Your task to perform on an android device: open app "Chime – Mobile Banking" (install if not already installed), go to login, and select forgot password Image 0: 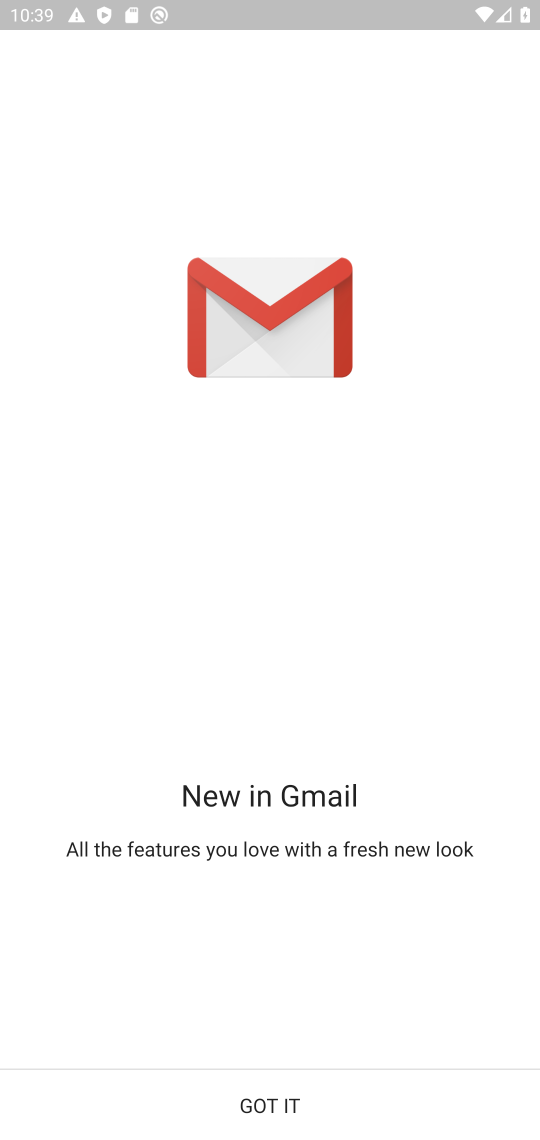
Step 0: press home button
Your task to perform on an android device: open app "Chime – Mobile Banking" (install if not already installed), go to login, and select forgot password Image 1: 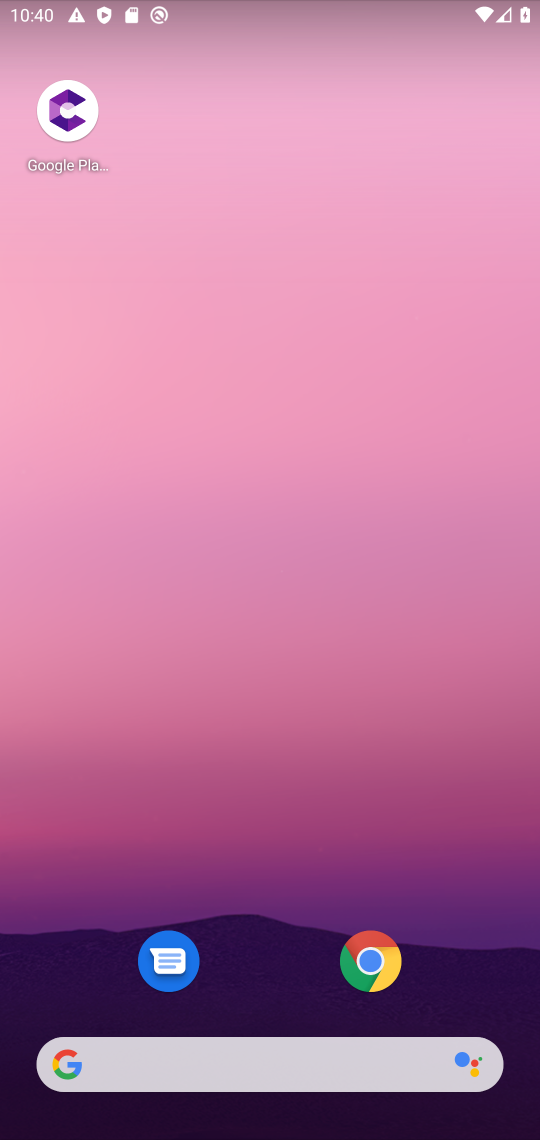
Step 1: drag from (270, 1003) to (328, 87)
Your task to perform on an android device: open app "Chime – Mobile Banking" (install if not already installed), go to login, and select forgot password Image 2: 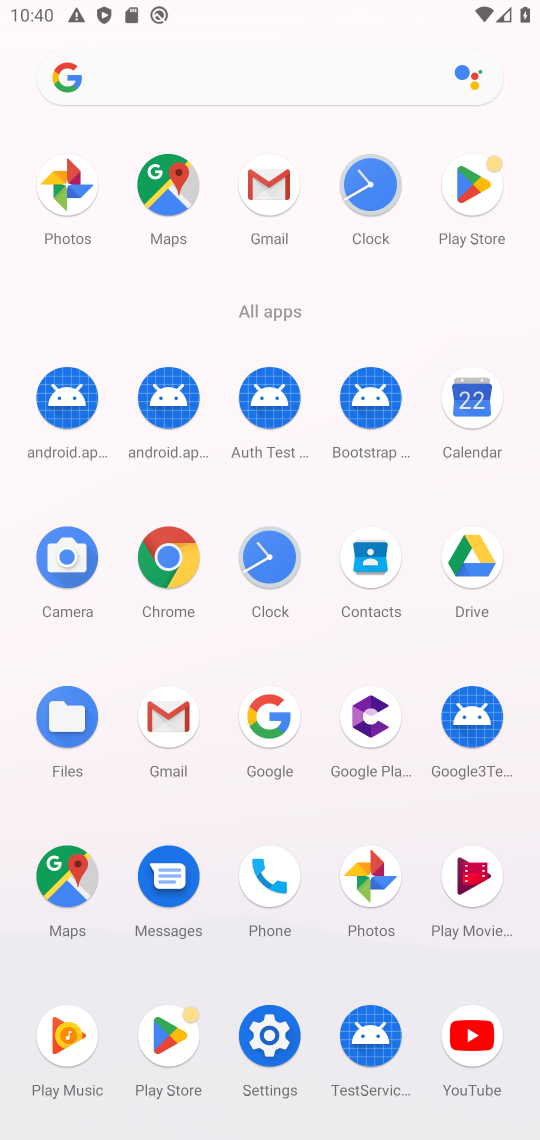
Step 2: click (481, 208)
Your task to perform on an android device: open app "Chime – Mobile Banking" (install if not already installed), go to login, and select forgot password Image 3: 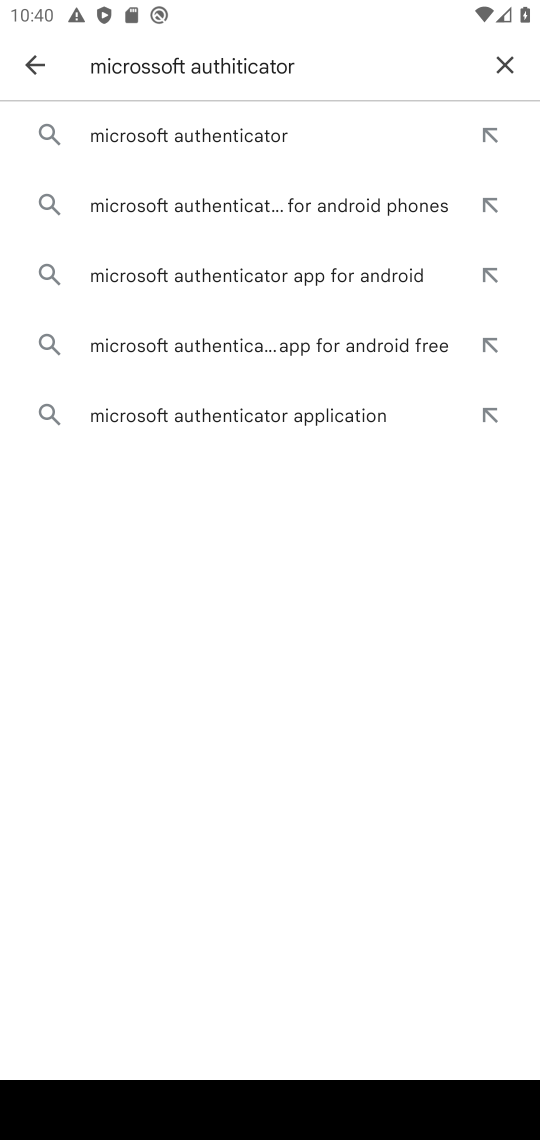
Step 3: click (500, 82)
Your task to perform on an android device: open app "Chime – Mobile Banking" (install if not already installed), go to login, and select forgot password Image 4: 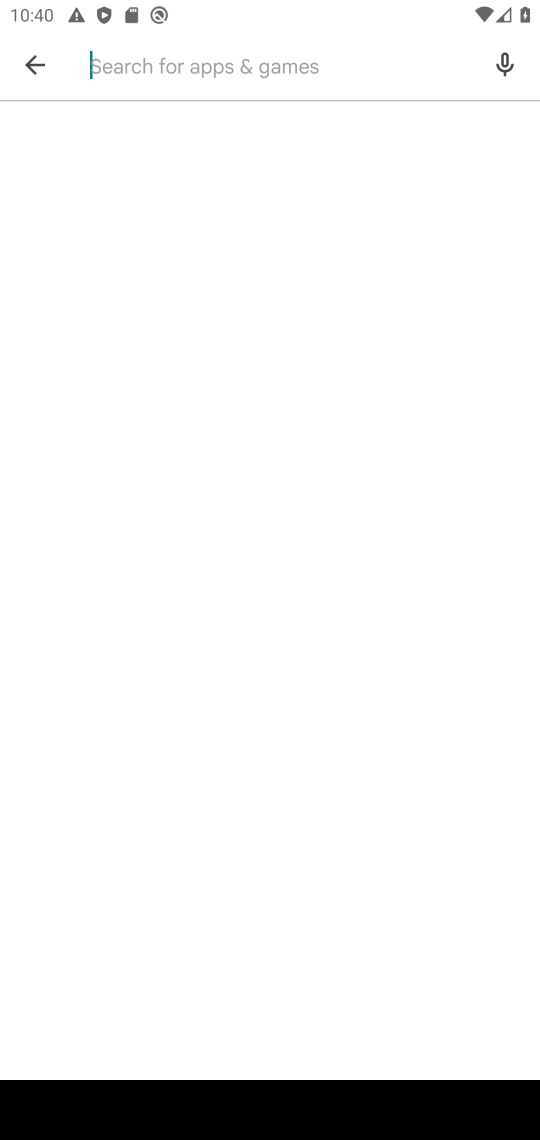
Step 4: type "chime"
Your task to perform on an android device: open app "Chime – Mobile Banking" (install if not already installed), go to login, and select forgot password Image 5: 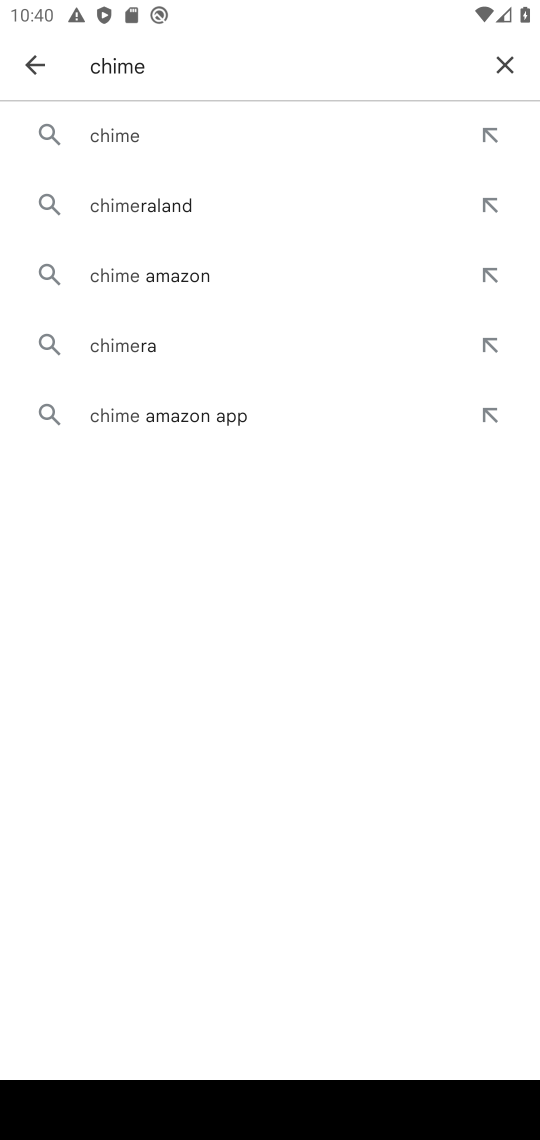
Step 5: click (240, 155)
Your task to perform on an android device: open app "Chime – Mobile Banking" (install if not already installed), go to login, and select forgot password Image 6: 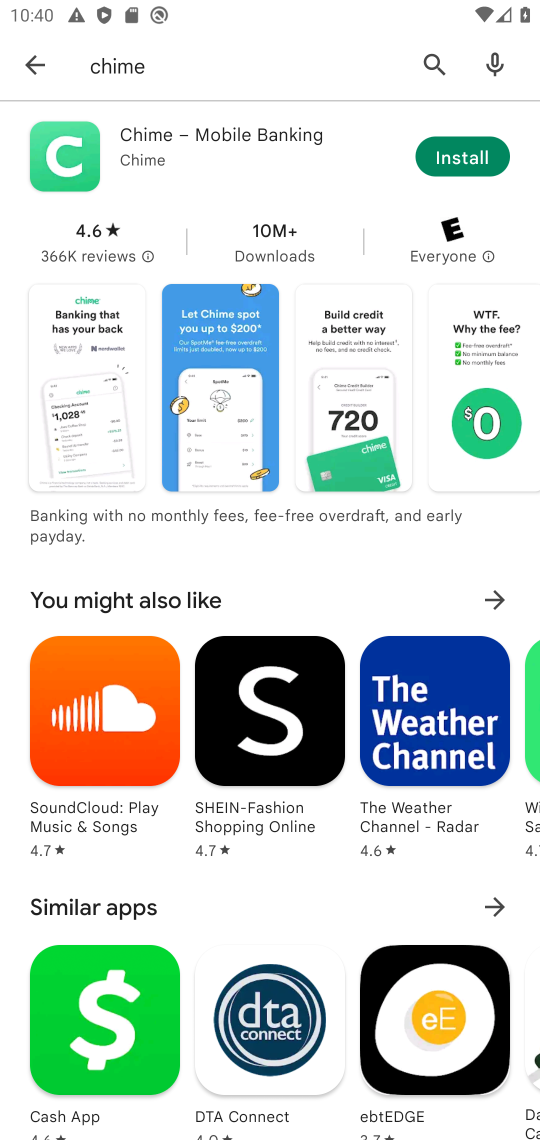
Step 6: click (449, 163)
Your task to perform on an android device: open app "Chime – Mobile Banking" (install if not already installed), go to login, and select forgot password Image 7: 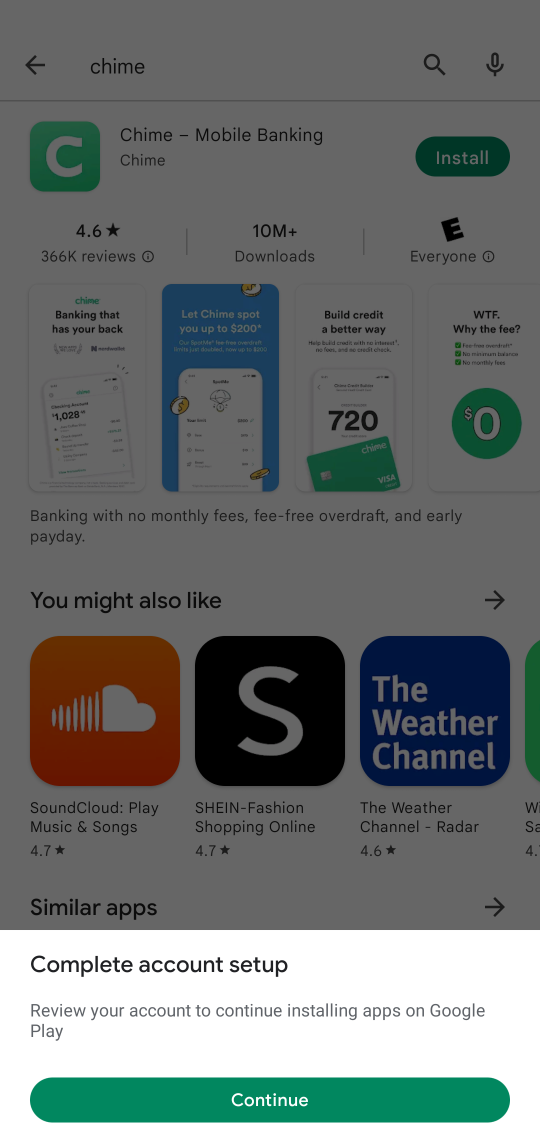
Step 7: click (315, 1086)
Your task to perform on an android device: open app "Chime – Mobile Banking" (install if not already installed), go to login, and select forgot password Image 8: 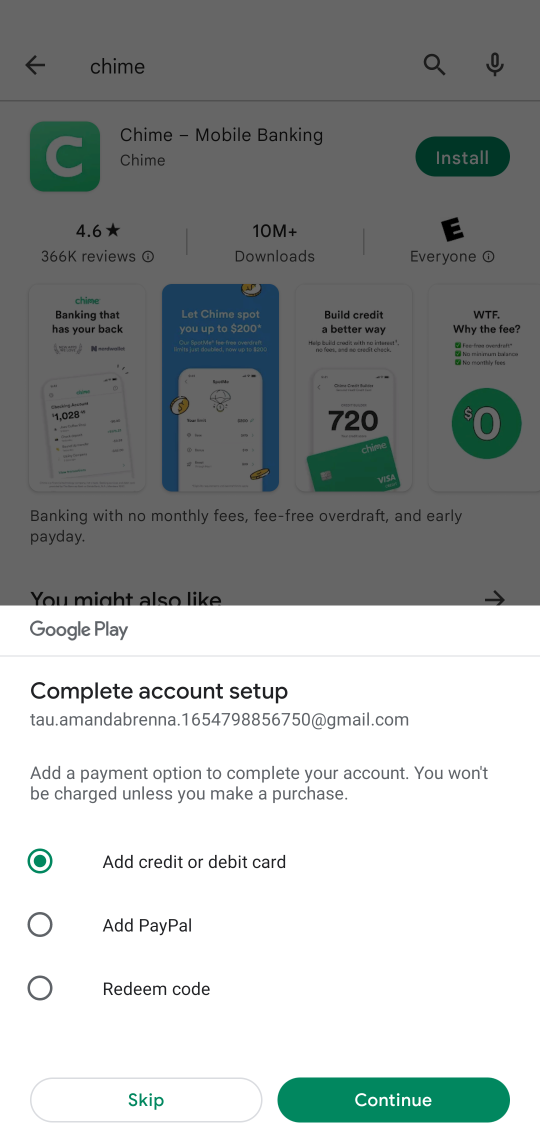
Step 8: click (127, 1082)
Your task to perform on an android device: open app "Chime – Mobile Banking" (install if not already installed), go to login, and select forgot password Image 9: 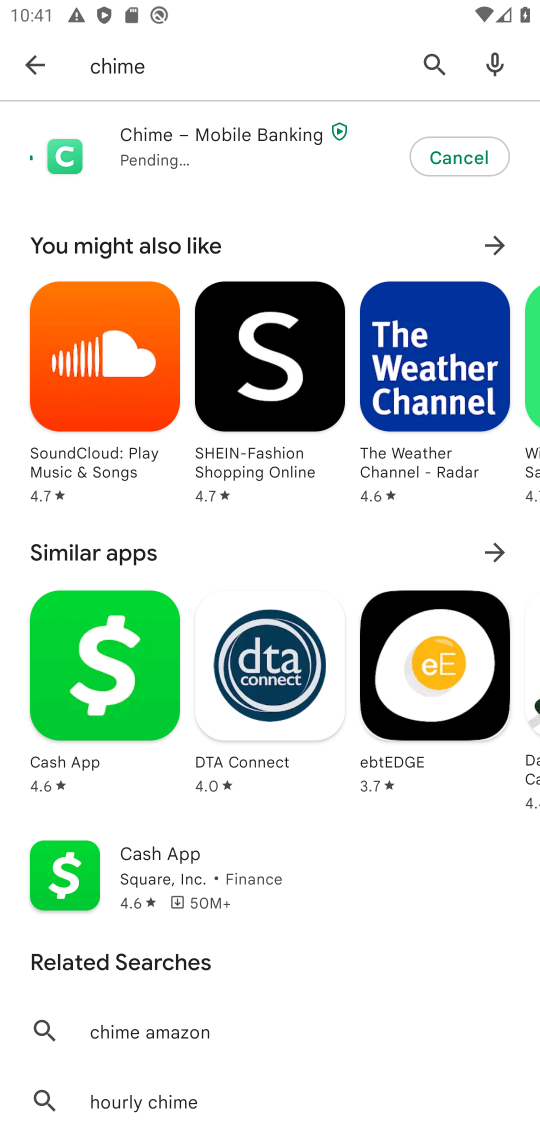
Step 9: task complete